Your task to perform on an android device: turn on wifi Image 0: 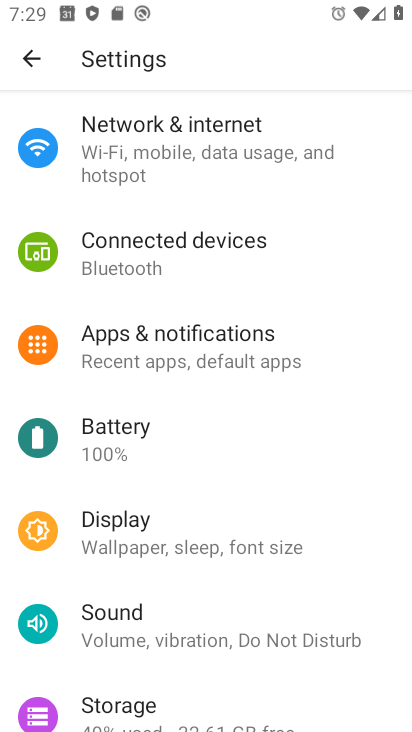
Step 0: click (207, 146)
Your task to perform on an android device: turn on wifi Image 1: 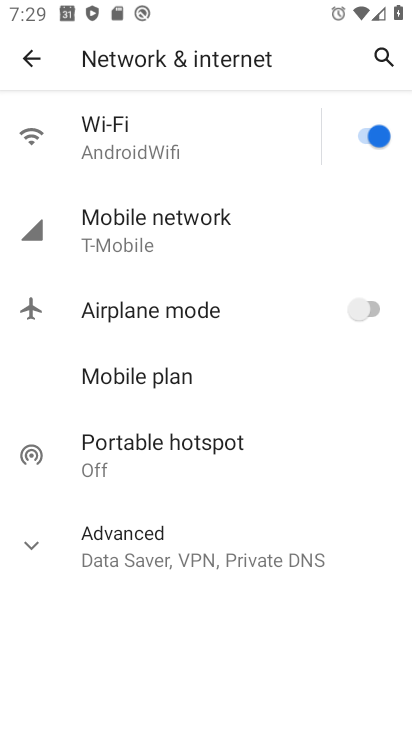
Step 1: task complete